Your task to perform on an android device: Go to wifi settings Image 0: 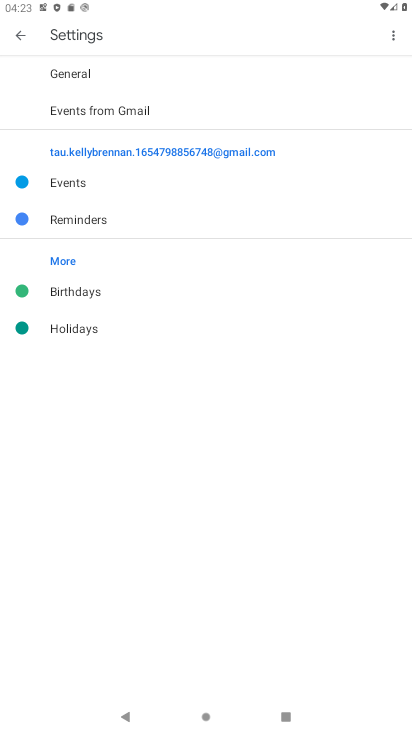
Step 0: press home button
Your task to perform on an android device: Go to wifi settings Image 1: 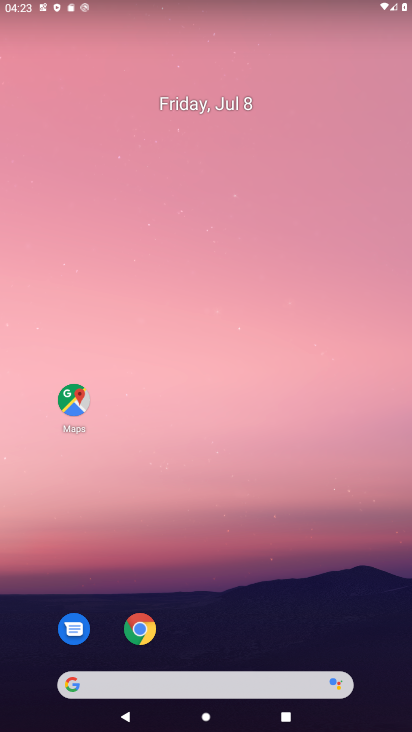
Step 1: drag from (236, 682) to (221, 143)
Your task to perform on an android device: Go to wifi settings Image 2: 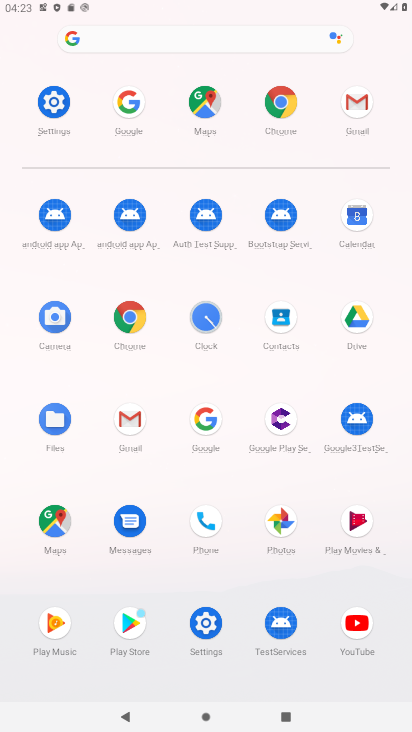
Step 2: click (62, 99)
Your task to perform on an android device: Go to wifi settings Image 3: 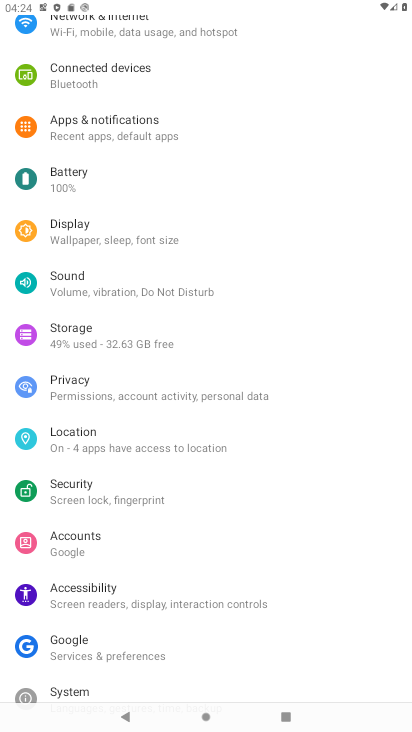
Step 3: drag from (114, 80) to (109, 525)
Your task to perform on an android device: Go to wifi settings Image 4: 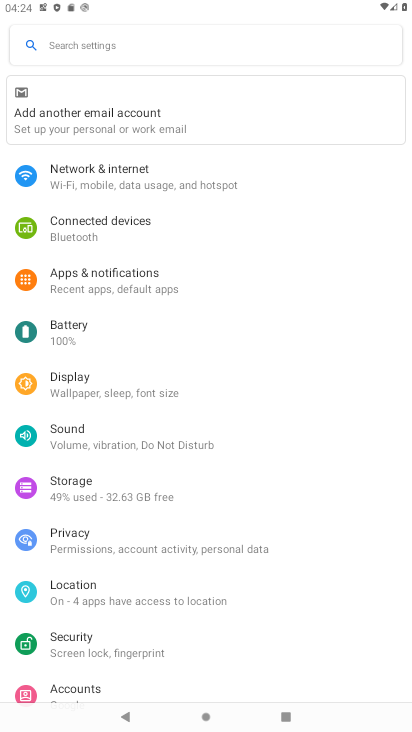
Step 4: click (106, 169)
Your task to perform on an android device: Go to wifi settings Image 5: 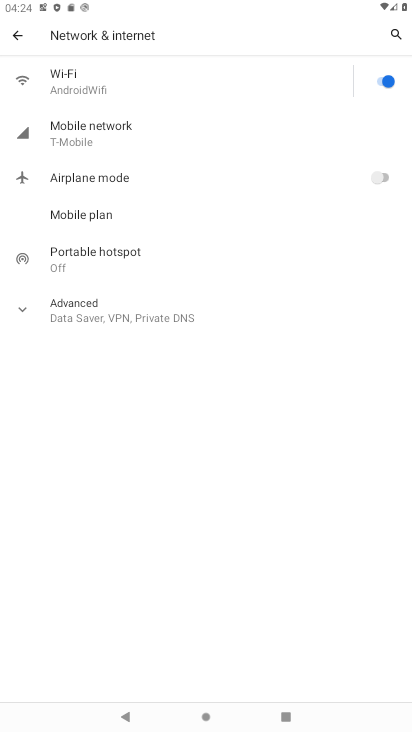
Step 5: click (61, 78)
Your task to perform on an android device: Go to wifi settings Image 6: 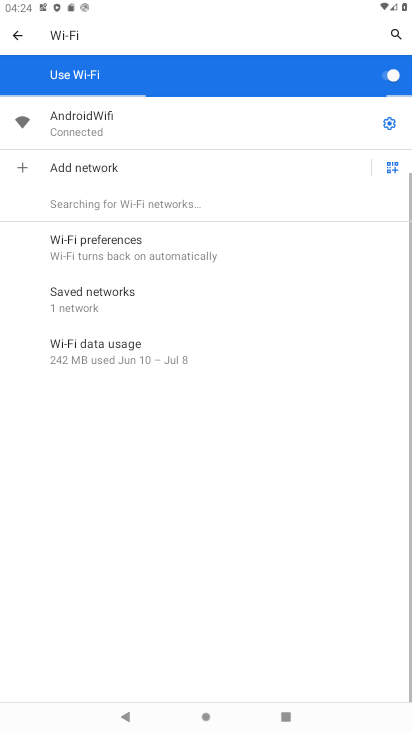
Step 6: task complete